Your task to perform on an android device: move an email to a new category in the gmail app Image 0: 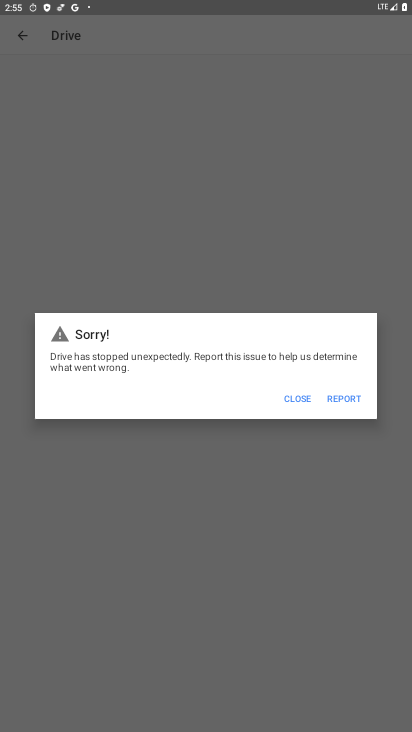
Step 0: press home button
Your task to perform on an android device: move an email to a new category in the gmail app Image 1: 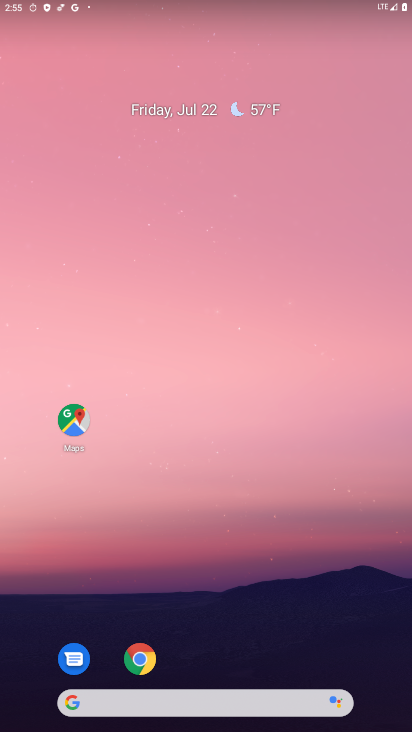
Step 1: drag from (324, 617) to (302, 90)
Your task to perform on an android device: move an email to a new category in the gmail app Image 2: 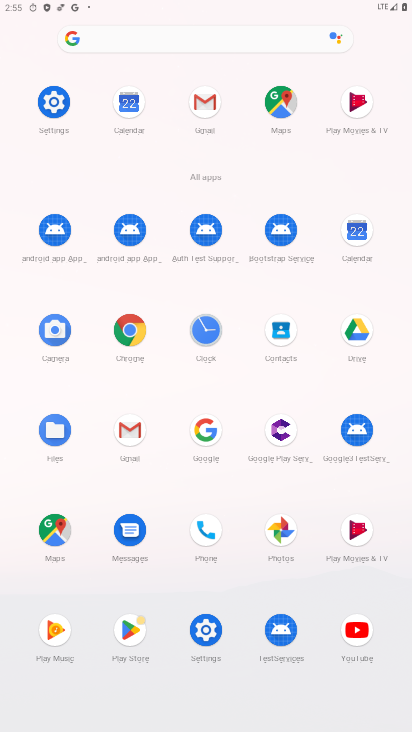
Step 2: click (201, 108)
Your task to perform on an android device: move an email to a new category in the gmail app Image 3: 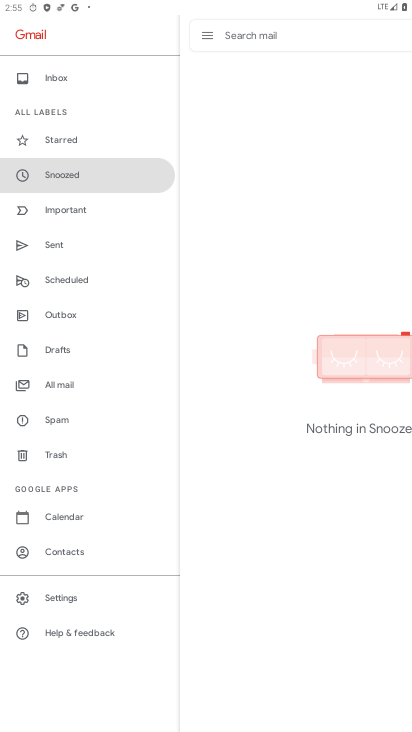
Step 3: click (60, 387)
Your task to perform on an android device: move an email to a new category in the gmail app Image 4: 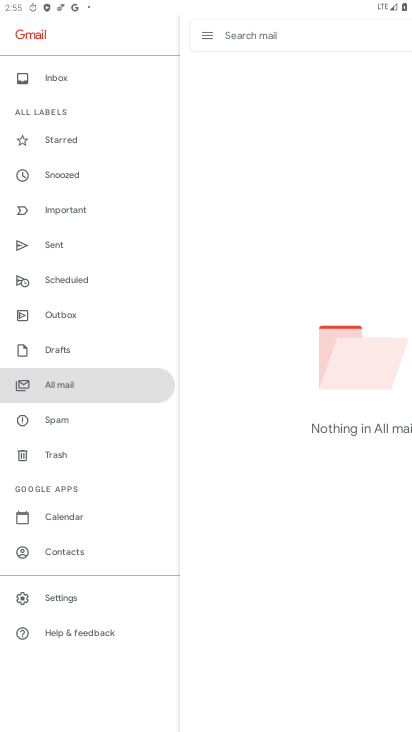
Step 4: task complete